Your task to perform on an android device: Go to accessibility settings Image 0: 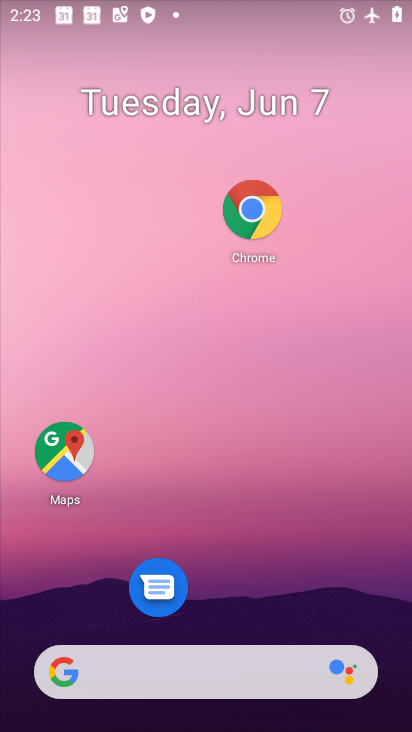
Step 0: drag from (251, 674) to (192, 114)
Your task to perform on an android device: Go to accessibility settings Image 1: 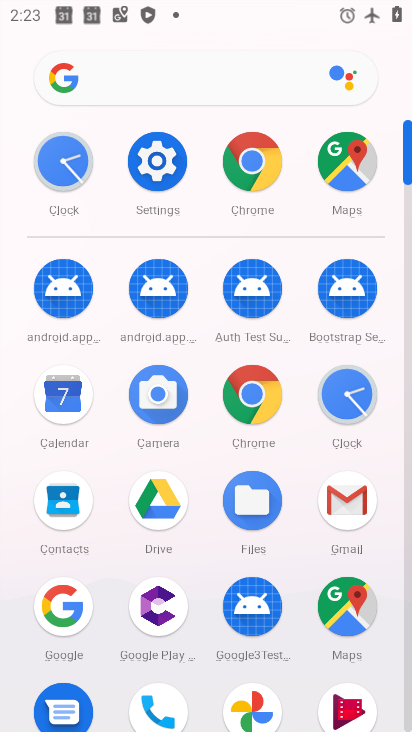
Step 1: click (167, 152)
Your task to perform on an android device: Go to accessibility settings Image 2: 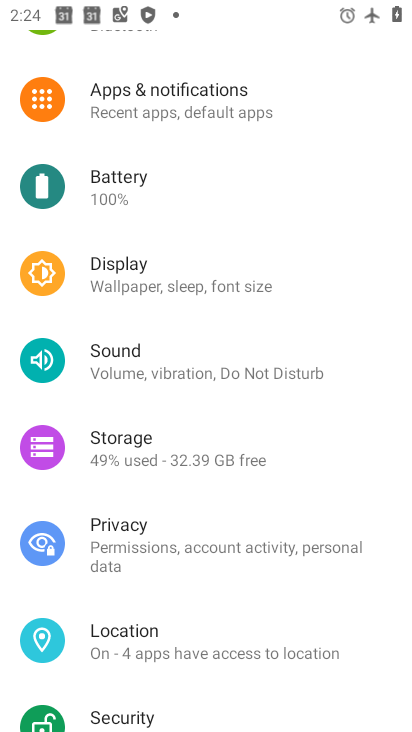
Step 2: drag from (175, 560) to (79, 161)
Your task to perform on an android device: Go to accessibility settings Image 3: 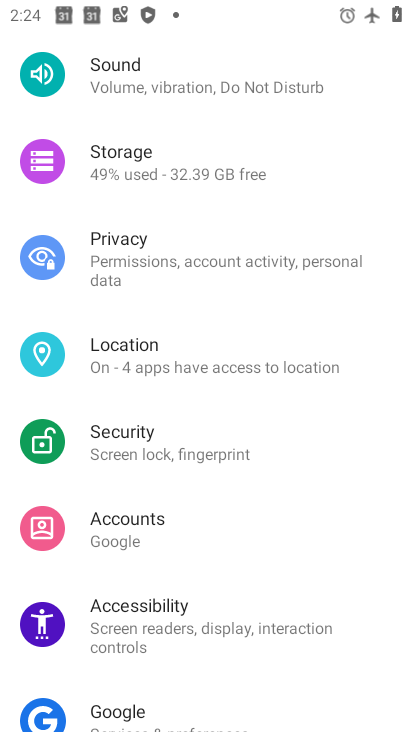
Step 3: click (219, 617)
Your task to perform on an android device: Go to accessibility settings Image 4: 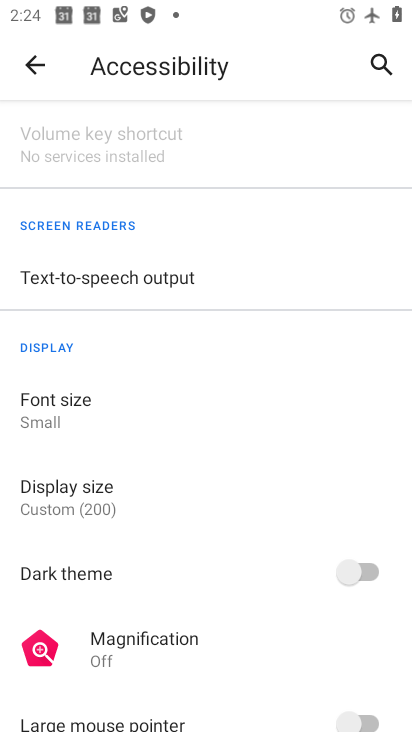
Step 4: task complete